Your task to perform on an android device: Go to wifi settings Image 0: 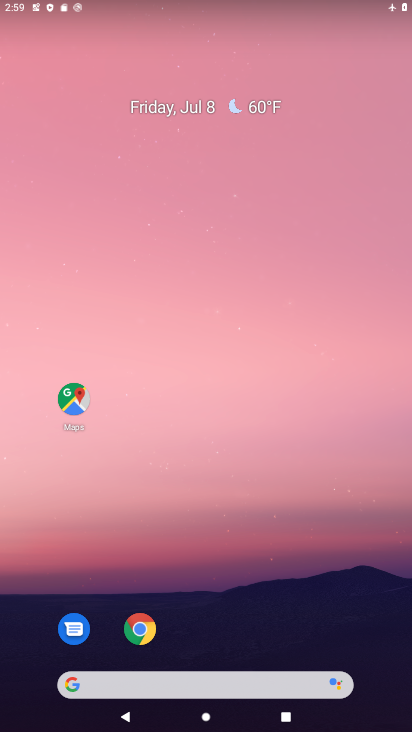
Step 0: drag from (209, 640) to (212, 252)
Your task to perform on an android device: Go to wifi settings Image 1: 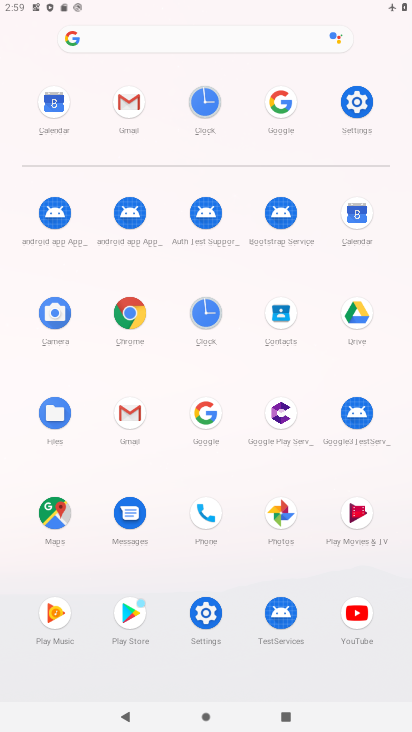
Step 1: click (350, 115)
Your task to perform on an android device: Go to wifi settings Image 2: 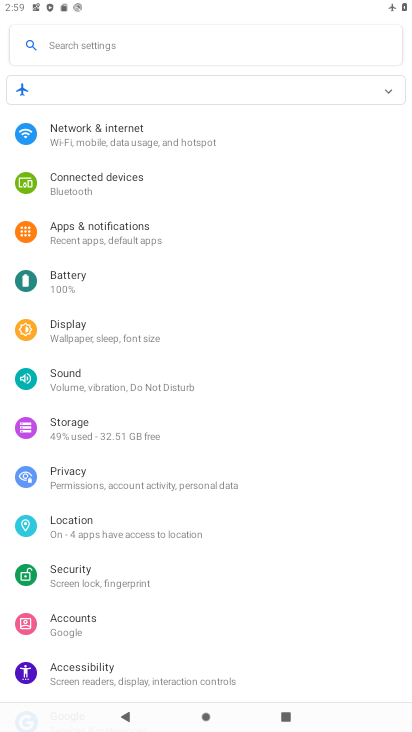
Step 2: click (94, 143)
Your task to perform on an android device: Go to wifi settings Image 3: 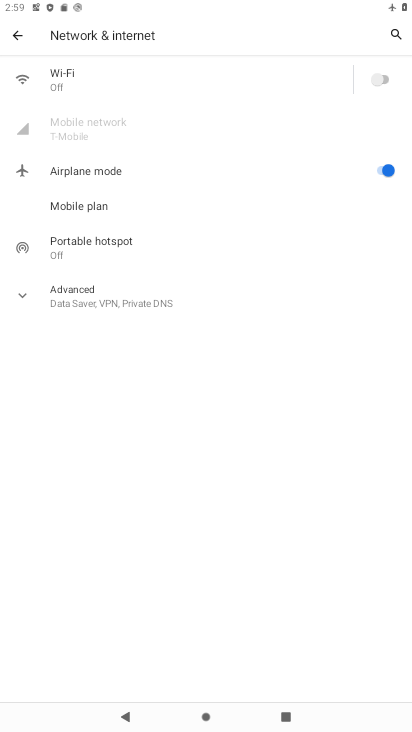
Step 3: click (176, 77)
Your task to perform on an android device: Go to wifi settings Image 4: 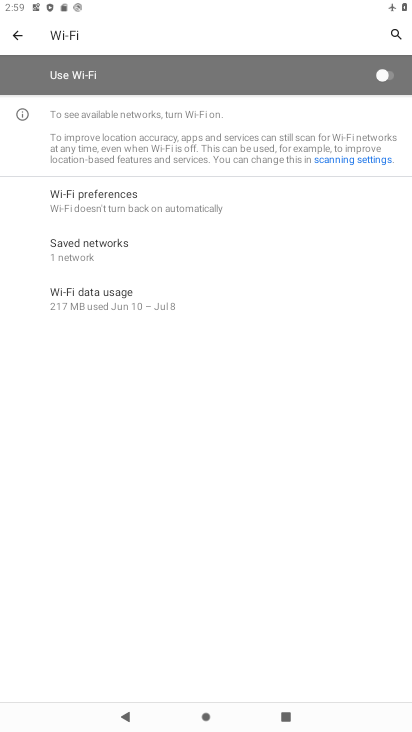
Step 4: task complete